Your task to perform on an android device: turn on location history Image 0: 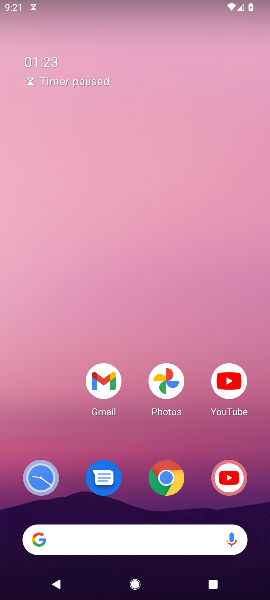
Step 0: drag from (101, 551) to (249, 66)
Your task to perform on an android device: turn on location history Image 1: 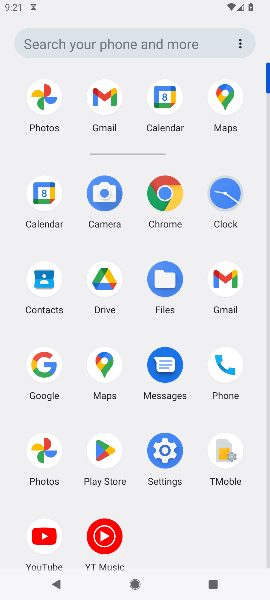
Step 1: click (171, 457)
Your task to perform on an android device: turn on location history Image 2: 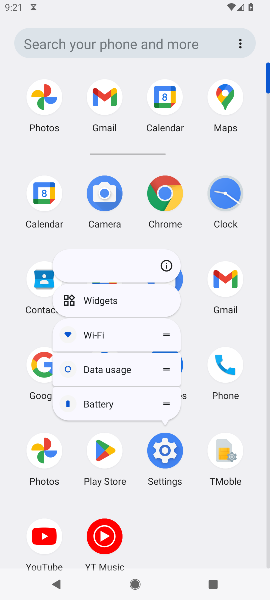
Step 2: click (171, 457)
Your task to perform on an android device: turn on location history Image 3: 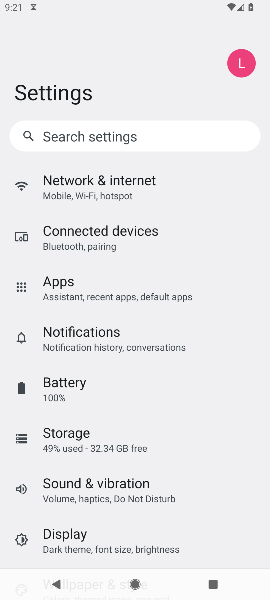
Step 3: drag from (130, 519) to (246, 263)
Your task to perform on an android device: turn on location history Image 4: 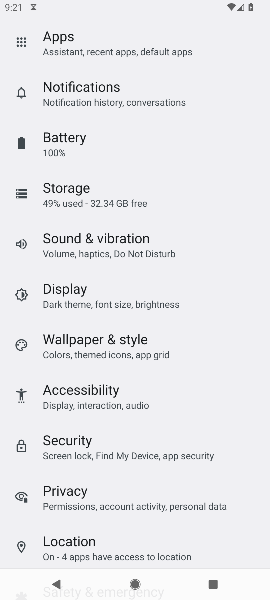
Step 4: click (76, 541)
Your task to perform on an android device: turn on location history Image 5: 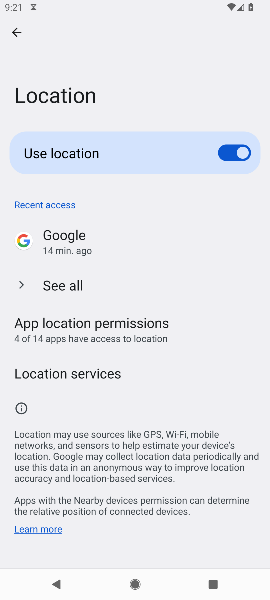
Step 5: click (102, 379)
Your task to perform on an android device: turn on location history Image 6: 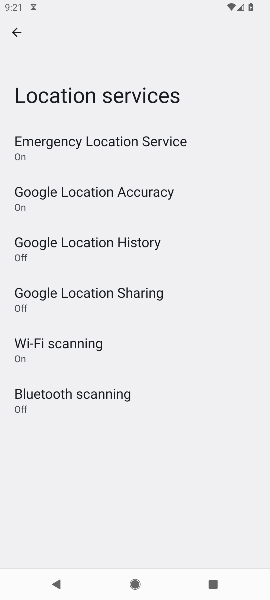
Step 6: click (87, 254)
Your task to perform on an android device: turn on location history Image 7: 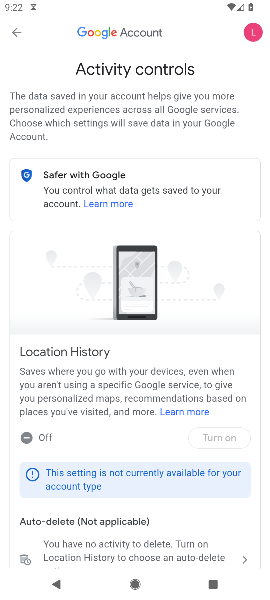
Step 7: task complete